Your task to perform on an android device: When is my next appointment? Image 0: 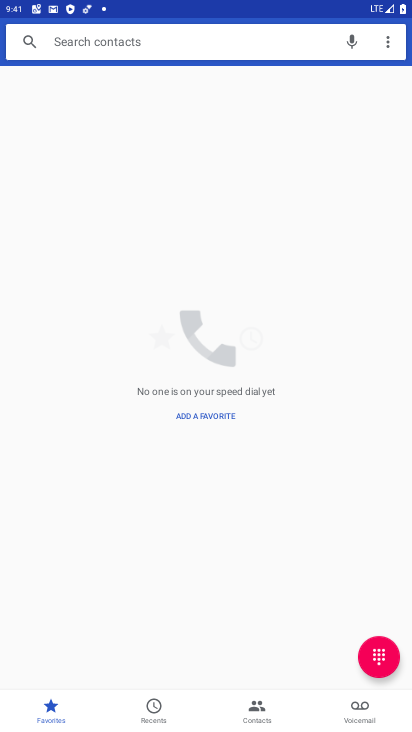
Step 0: press home button
Your task to perform on an android device: When is my next appointment? Image 1: 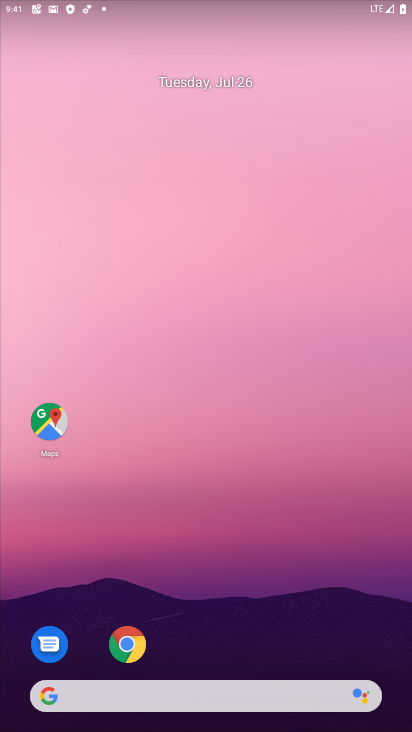
Step 1: drag from (242, 600) to (197, 45)
Your task to perform on an android device: When is my next appointment? Image 2: 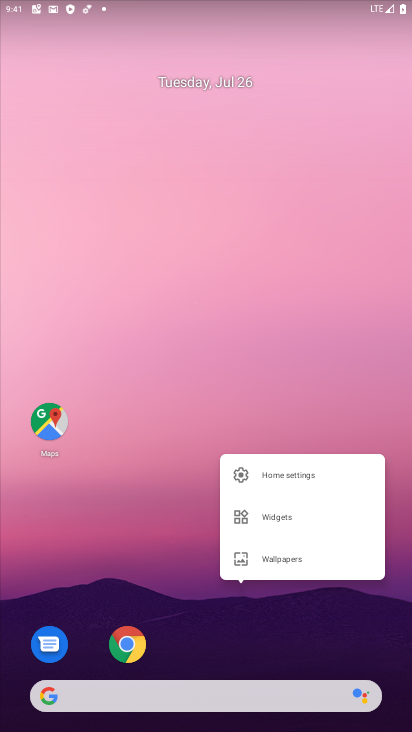
Step 2: drag from (209, 154) to (181, 16)
Your task to perform on an android device: When is my next appointment? Image 3: 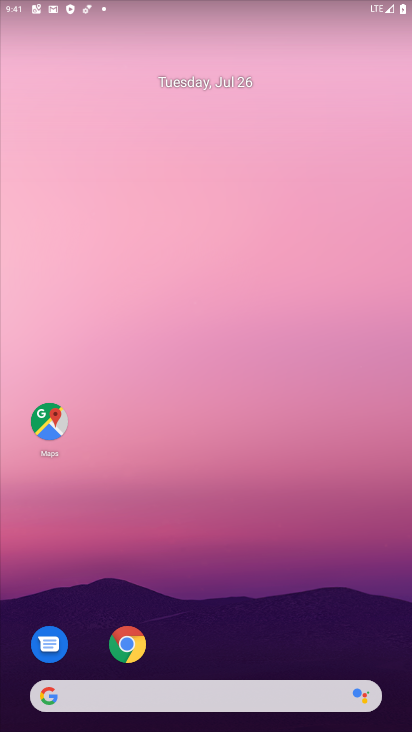
Step 3: drag from (201, 472) to (161, 57)
Your task to perform on an android device: When is my next appointment? Image 4: 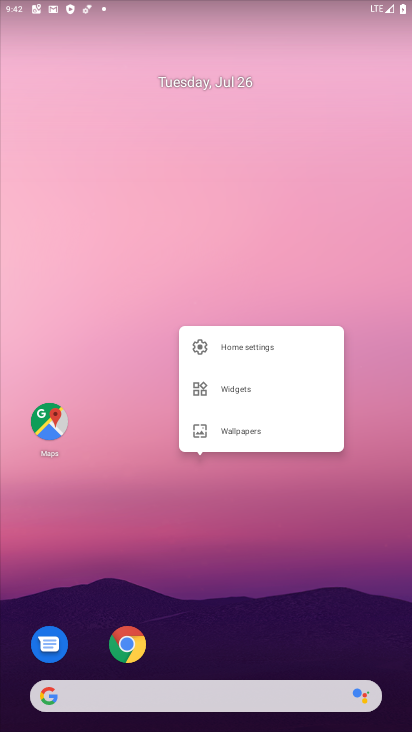
Step 4: drag from (251, 61) to (113, 283)
Your task to perform on an android device: When is my next appointment? Image 5: 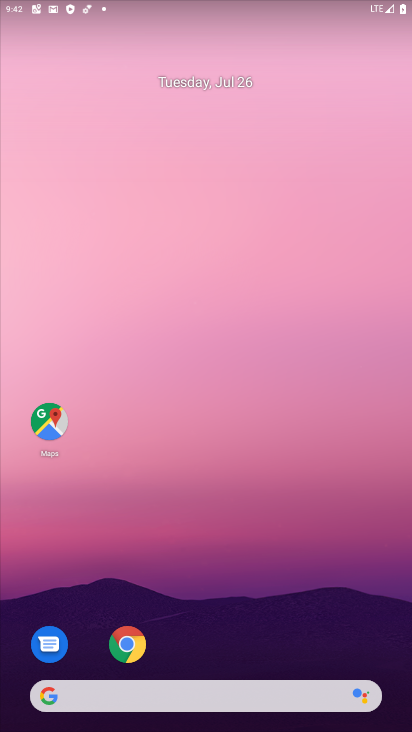
Step 5: drag from (232, 535) to (236, 20)
Your task to perform on an android device: When is my next appointment? Image 6: 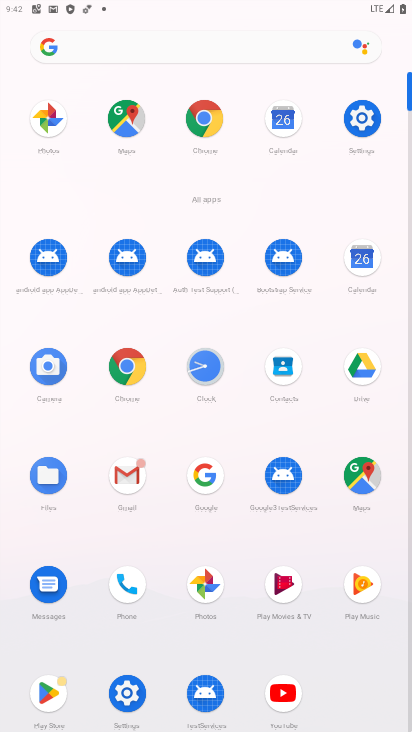
Step 6: click (361, 261)
Your task to perform on an android device: When is my next appointment? Image 7: 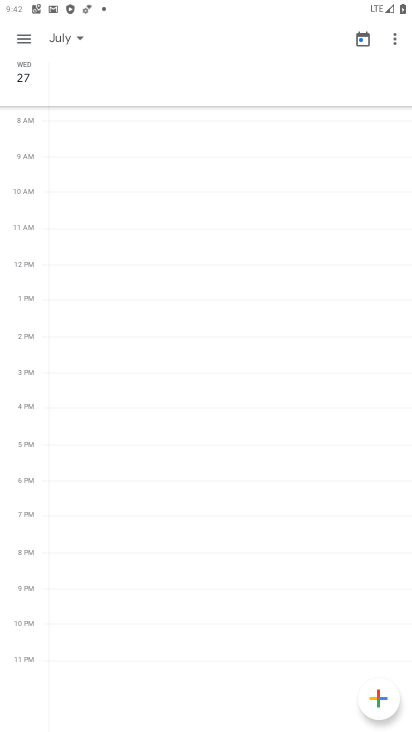
Step 7: click (26, 37)
Your task to perform on an android device: When is my next appointment? Image 8: 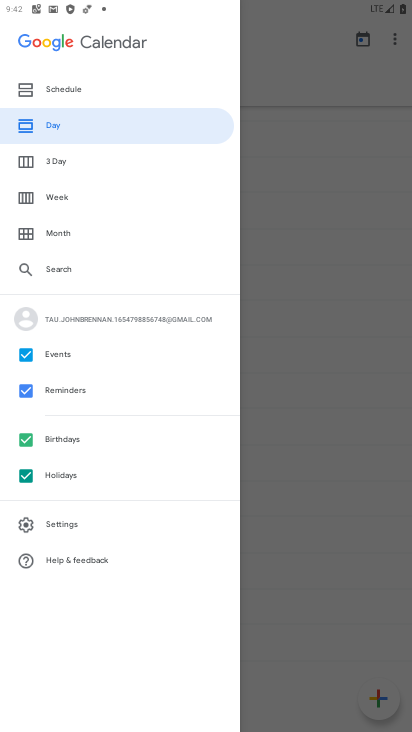
Step 8: click (41, 91)
Your task to perform on an android device: When is my next appointment? Image 9: 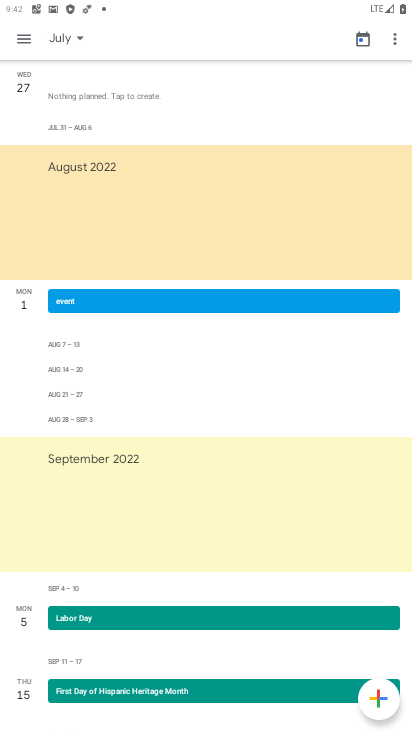
Step 9: drag from (149, 464) to (136, 184)
Your task to perform on an android device: When is my next appointment? Image 10: 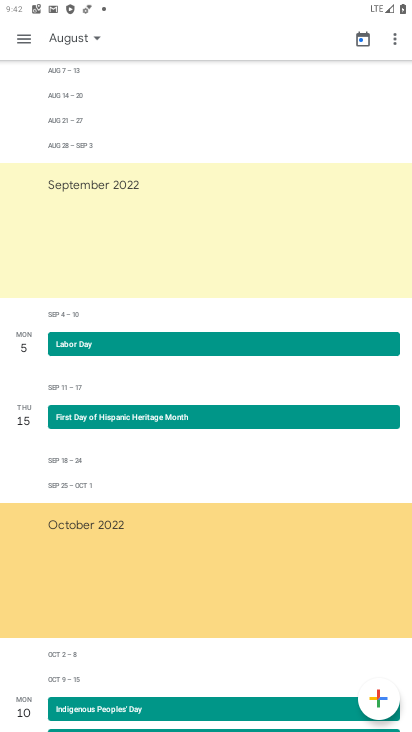
Step 10: drag from (161, 526) to (122, 185)
Your task to perform on an android device: When is my next appointment? Image 11: 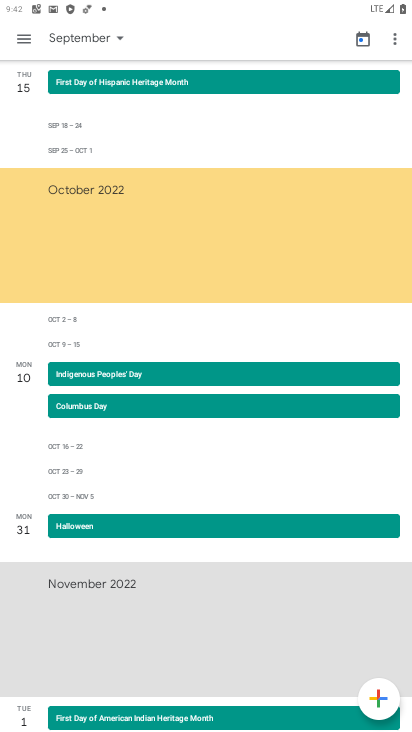
Step 11: drag from (169, 493) to (134, 163)
Your task to perform on an android device: When is my next appointment? Image 12: 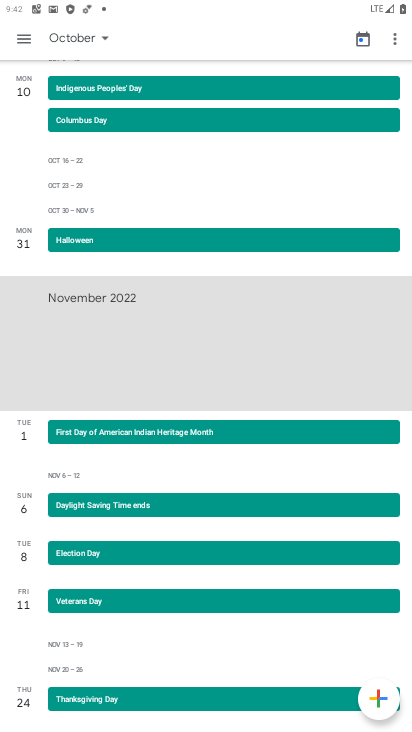
Step 12: drag from (163, 608) to (149, 256)
Your task to perform on an android device: When is my next appointment? Image 13: 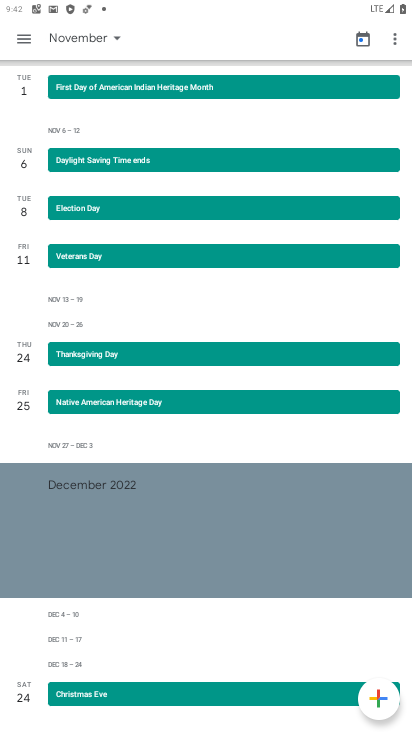
Step 13: drag from (153, 643) to (142, 345)
Your task to perform on an android device: When is my next appointment? Image 14: 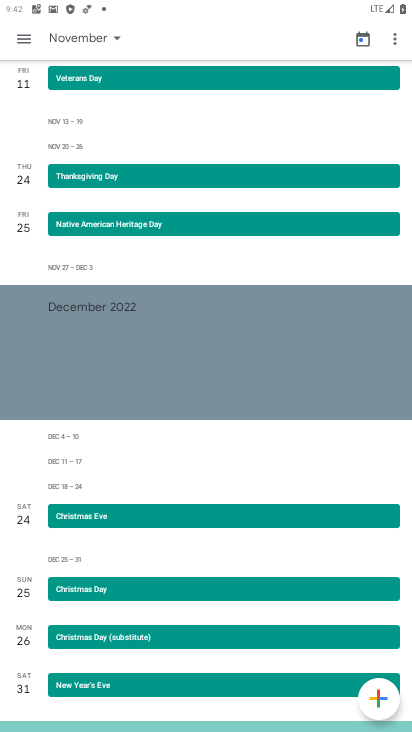
Step 14: drag from (128, 262) to (150, 639)
Your task to perform on an android device: When is my next appointment? Image 15: 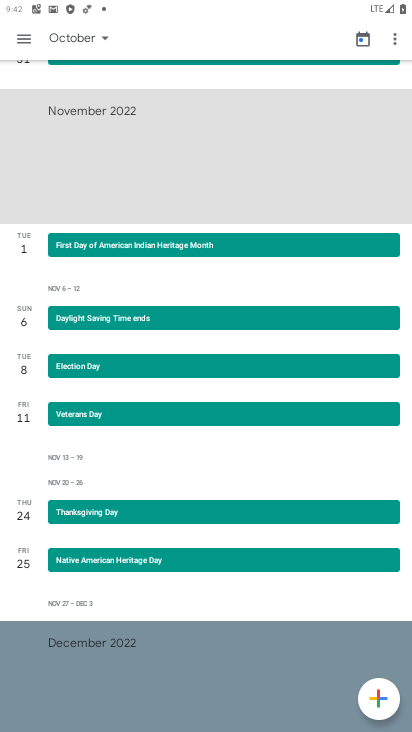
Step 15: click (25, 43)
Your task to perform on an android device: When is my next appointment? Image 16: 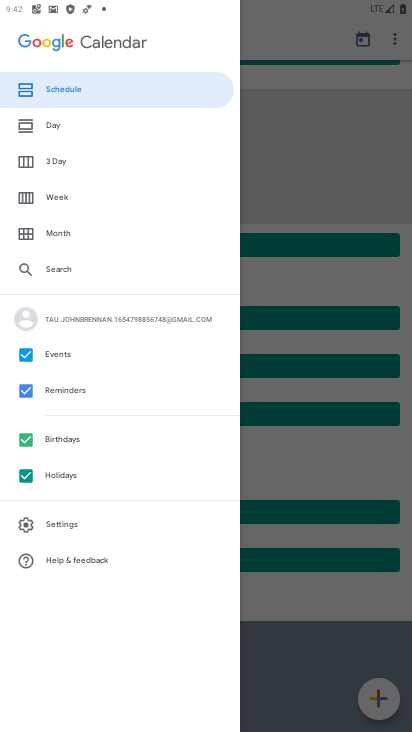
Step 16: click (57, 96)
Your task to perform on an android device: When is my next appointment? Image 17: 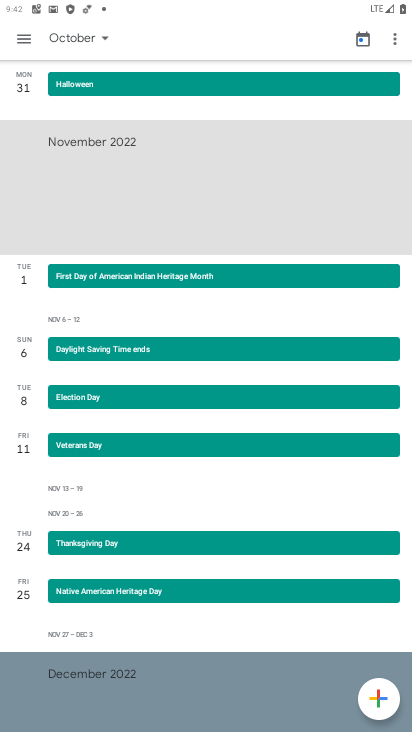
Step 17: drag from (133, 380) to (130, 213)
Your task to perform on an android device: When is my next appointment? Image 18: 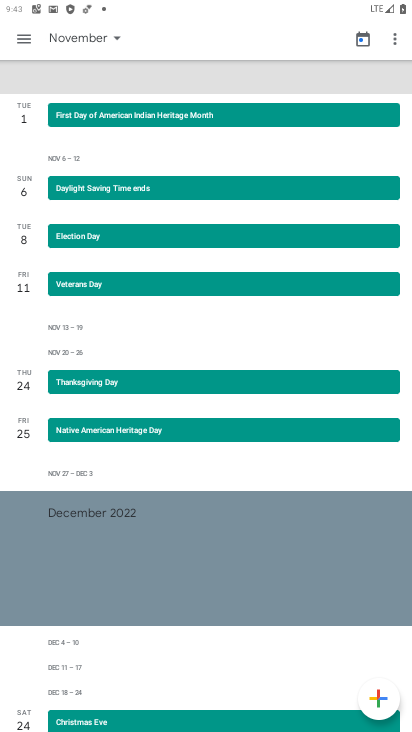
Step 18: drag from (135, 569) to (135, 206)
Your task to perform on an android device: When is my next appointment? Image 19: 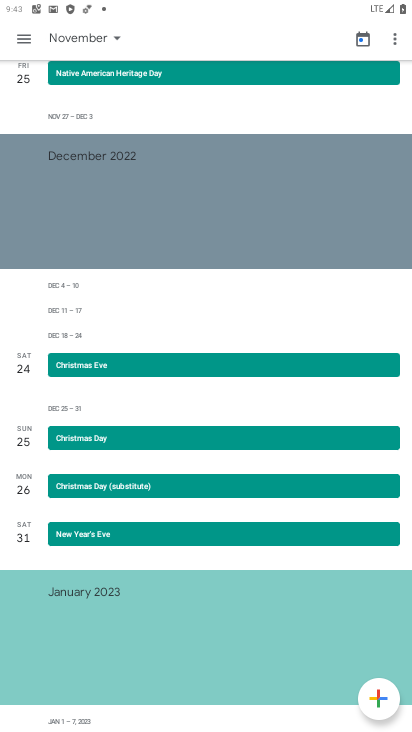
Step 19: drag from (172, 545) to (147, 228)
Your task to perform on an android device: When is my next appointment? Image 20: 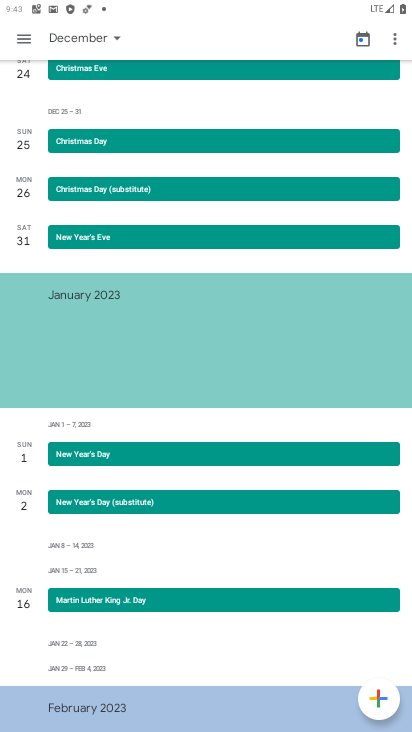
Step 20: drag from (145, 220) to (131, 637)
Your task to perform on an android device: When is my next appointment? Image 21: 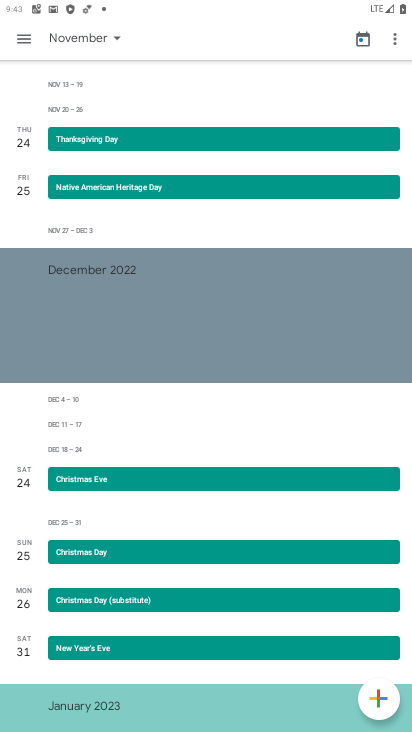
Step 21: drag from (115, 193) to (131, 603)
Your task to perform on an android device: When is my next appointment? Image 22: 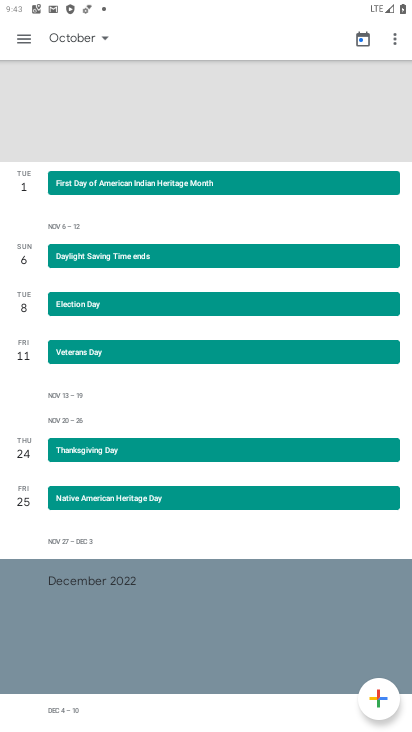
Step 22: drag from (122, 214) to (117, 664)
Your task to perform on an android device: When is my next appointment? Image 23: 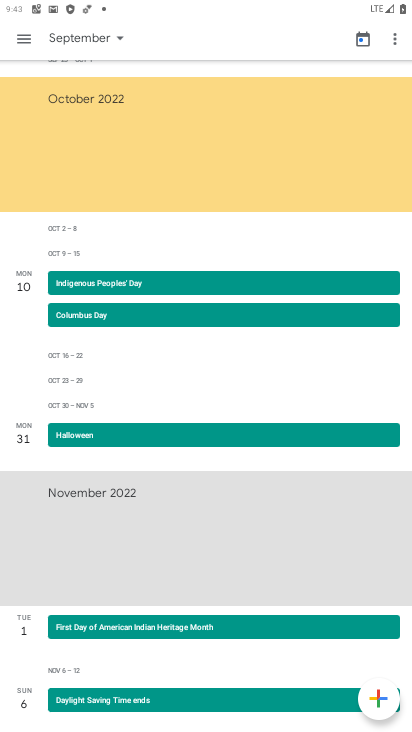
Step 23: drag from (137, 331) to (139, 632)
Your task to perform on an android device: When is my next appointment? Image 24: 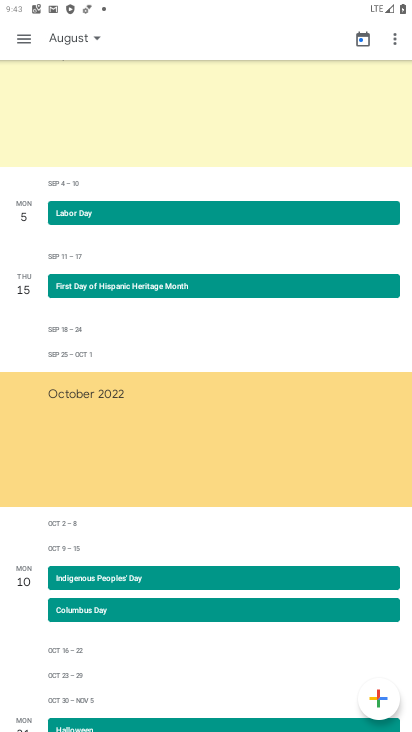
Step 24: drag from (139, 329) to (135, 615)
Your task to perform on an android device: When is my next appointment? Image 25: 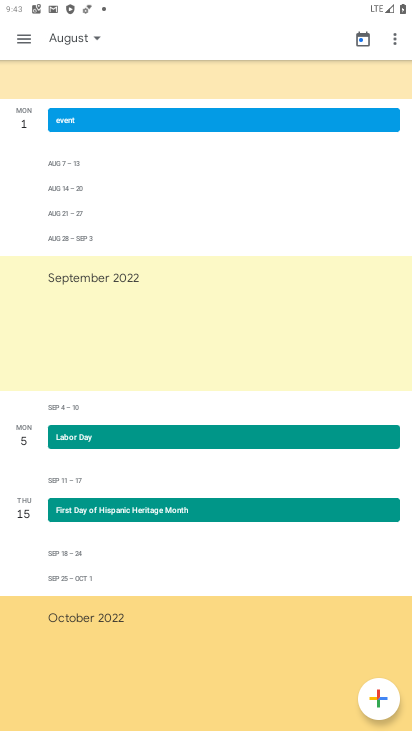
Step 25: click (23, 39)
Your task to perform on an android device: When is my next appointment? Image 26: 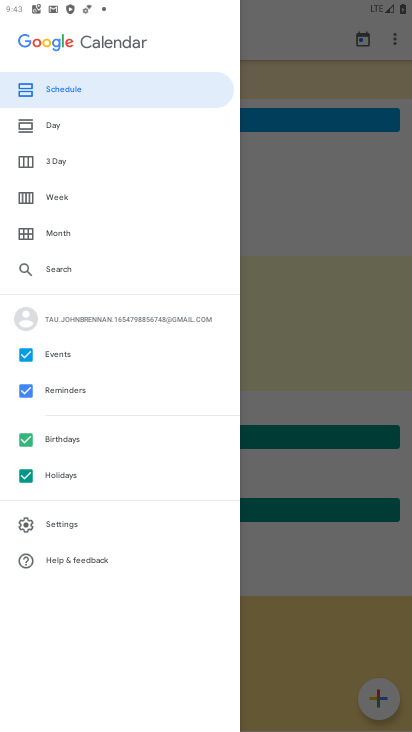
Step 26: click (21, 478)
Your task to perform on an android device: When is my next appointment? Image 27: 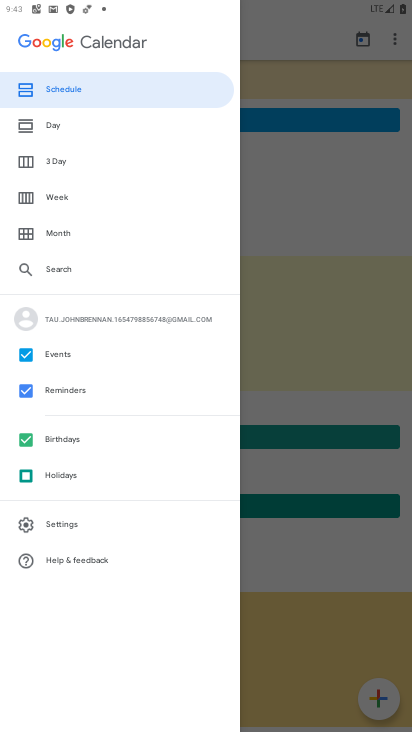
Step 27: click (23, 435)
Your task to perform on an android device: When is my next appointment? Image 28: 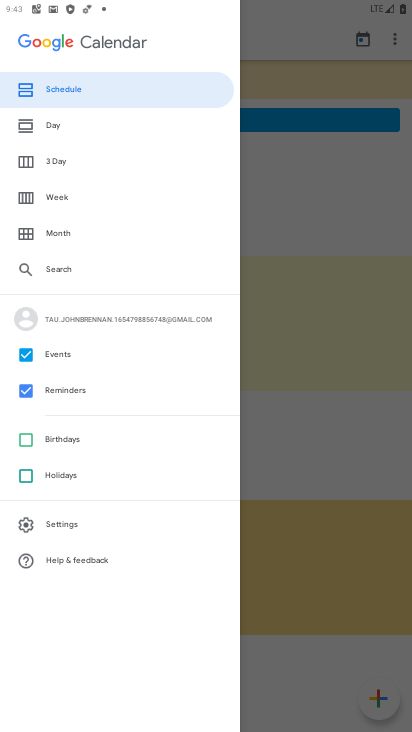
Step 28: click (66, 90)
Your task to perform on an android device: When is my next appointment? Image 29: 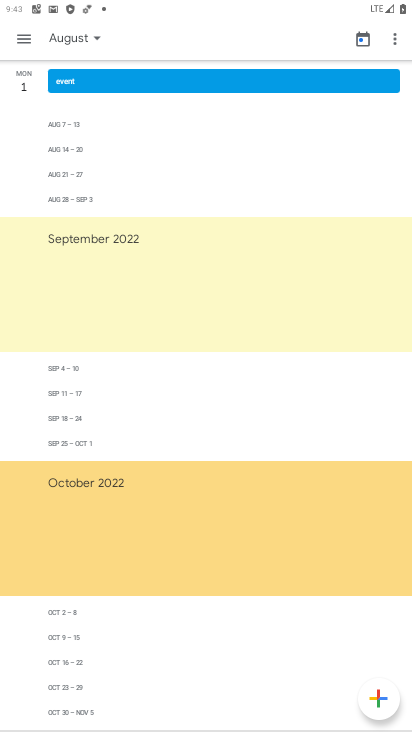
Step 29: drag from (104, 187) to (163, 563)
Your task to perform on an android device: When is my next appointment? Image 30: 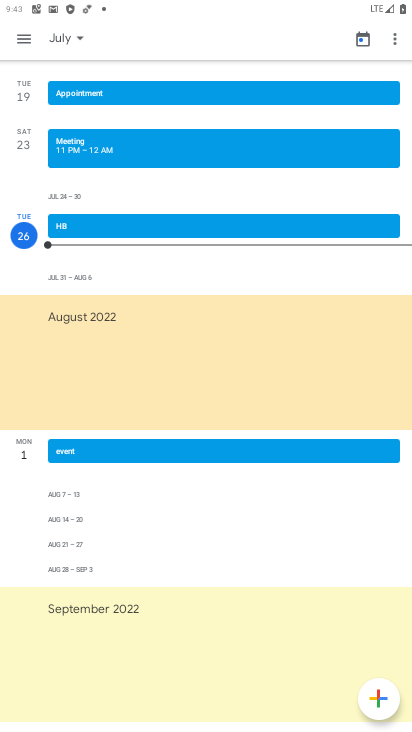
Step 30: click (64, 279)
Your task to perform on an android device: When is my next appointment? Image 31: 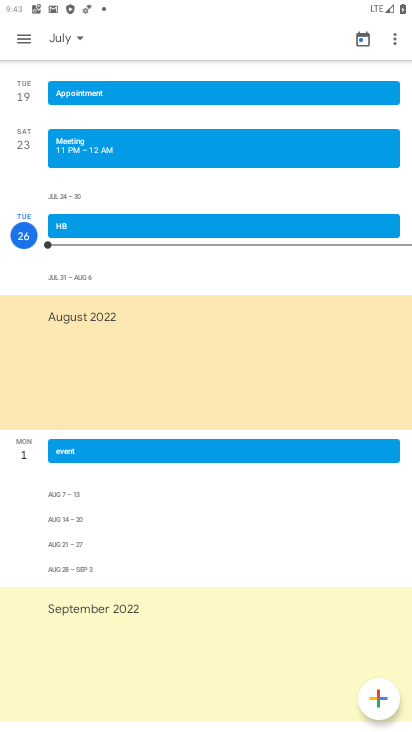
Step 31: click (74, 274)
Your task to perform on an android device: When is my next appointment? Image 32: 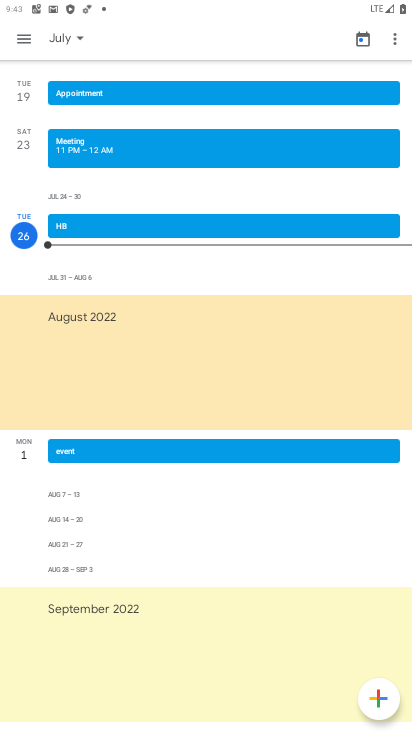
Step 32: task complete